Your task to perform on an android device: clear history in the chrome app Image 0: 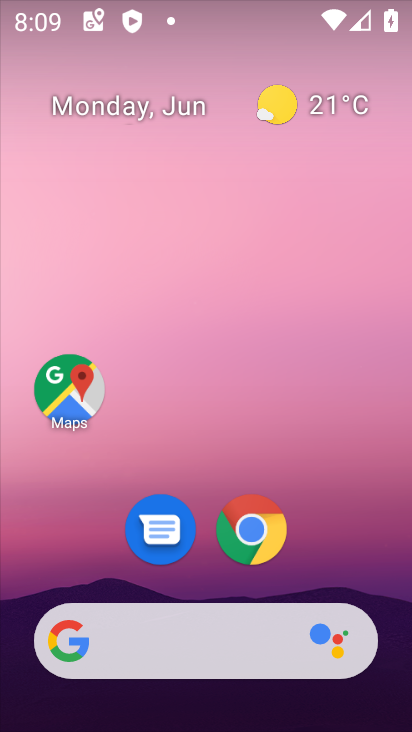
Step 0: click (264, 522)
Your task to perform on an android device: clear history in the chrome app Image 1: 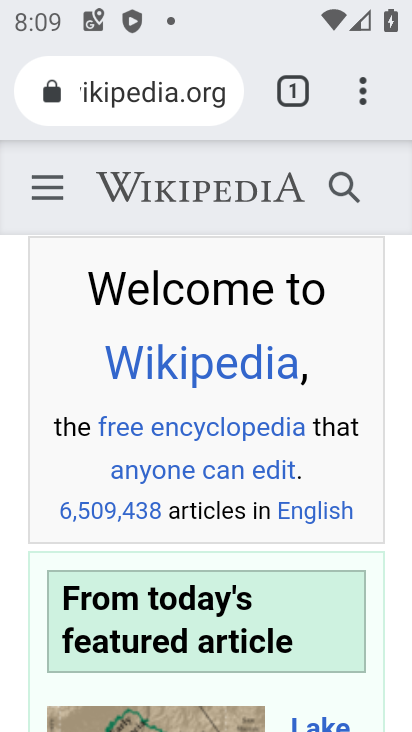
Step 1: click (365, 89)
Your task to perform on an android device: clear history in the chrome app Image 2: 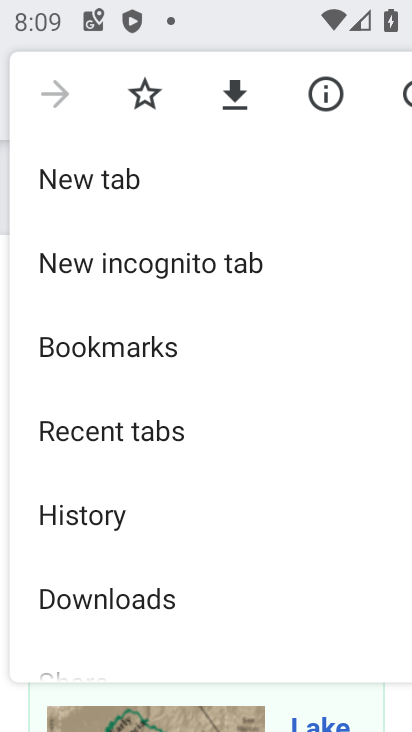
Step 2: click (99, 511)
Your task to perform on an android device: clear history in the chrome app Image 3: 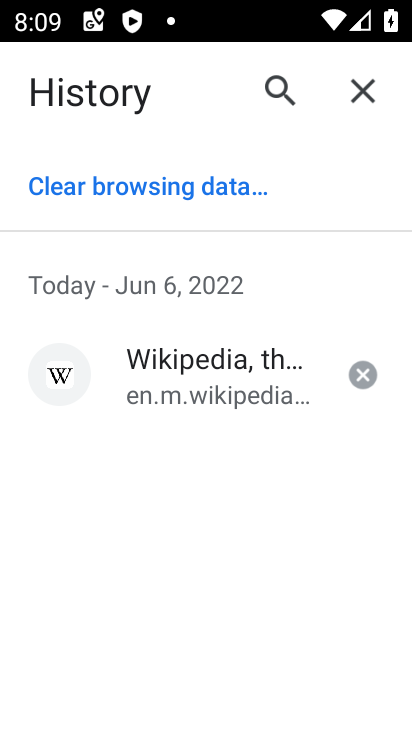
Step 3: click (203, 188)
Your task to perform on an android device: clear history in the chrome app Image 4: 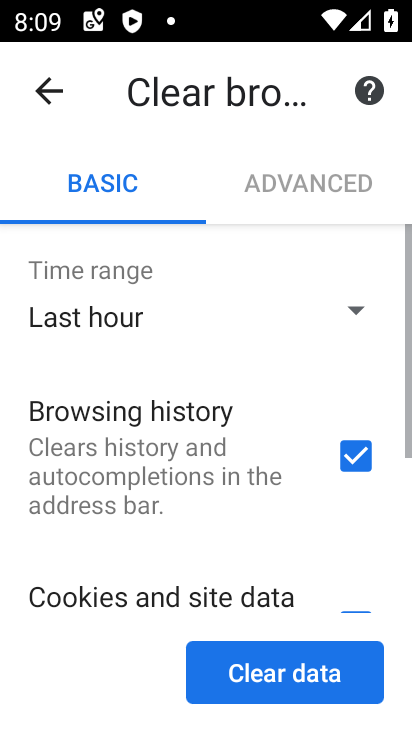
Step 4: click (326, 692)
Your task to perform on an android device: clear history in the chrome app Image 5: 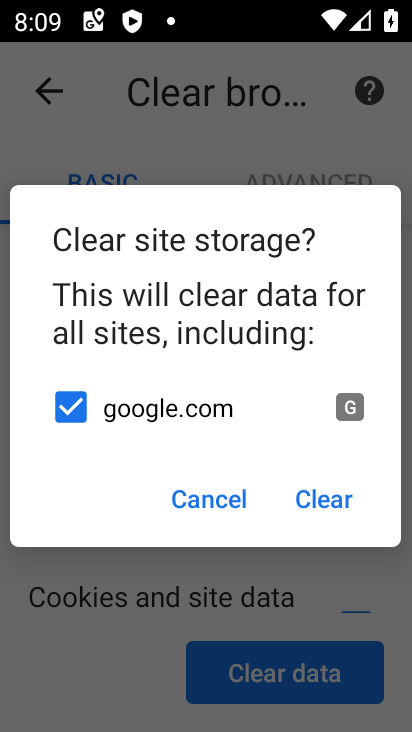
Step 5: click (340, 499)
Your task to perform on an android device: clear history in the chrome app Image 6: 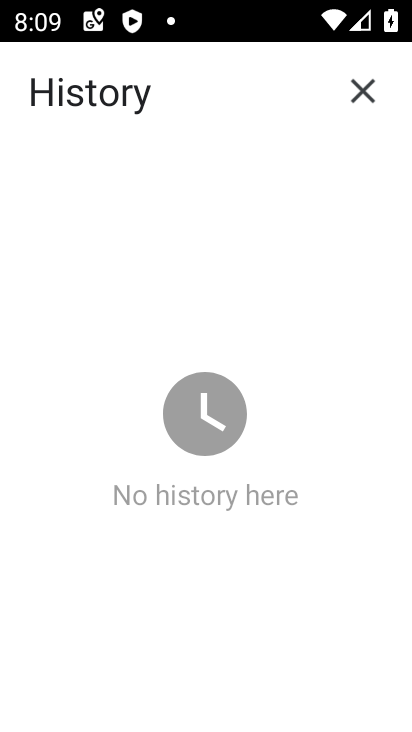
Step 6: task complete